Your task to perform on an android device: change your default location settings in chrome Image 0: 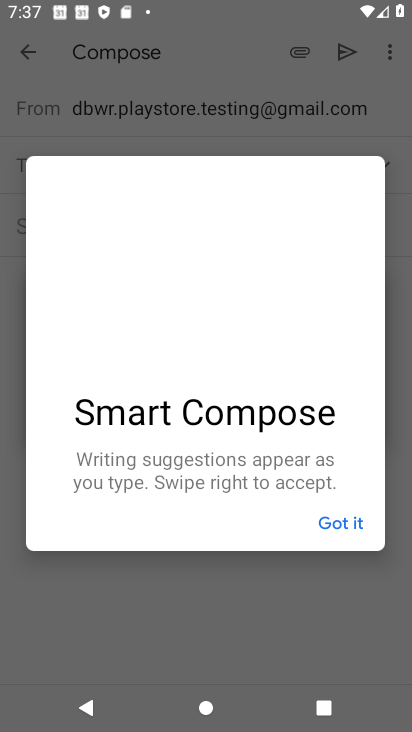
Step 0: press home button
Your task to perform on an android device: change your default location settings in chrome Image 1: 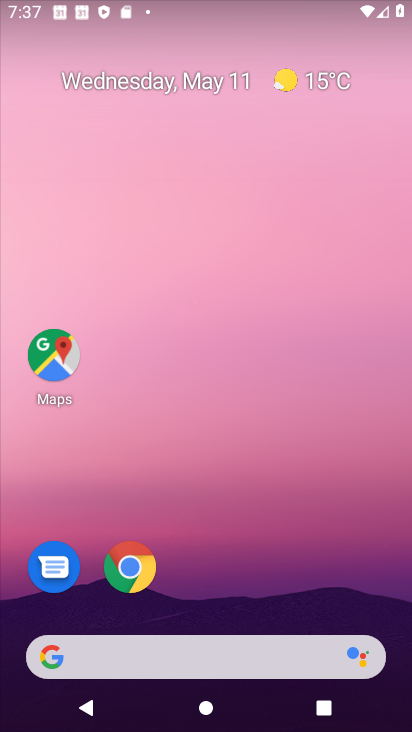
Step 1: click (122, 574)
Your task to perform on an android device: change your default location settings in chrome Image 2: 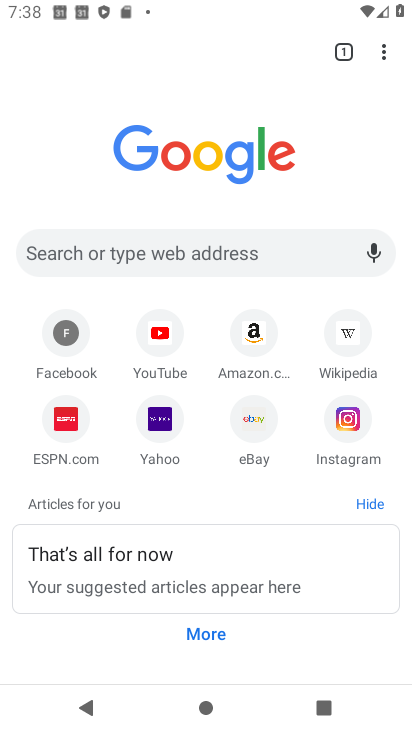
Step 2: drag from (382, 53) to (236, 445)
Your task to perform on an android device: change your default location settings in chrome Image 3: 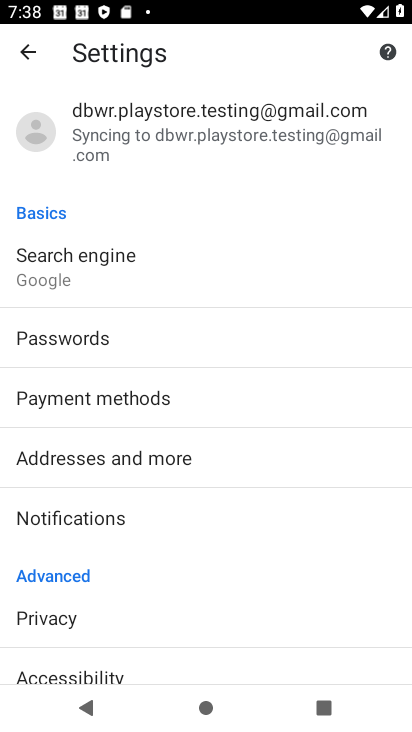
Step 3: drag from (131, 622) to (287, 268)
Your task to perform on an android device: change your default location settings in chrome Image 4: 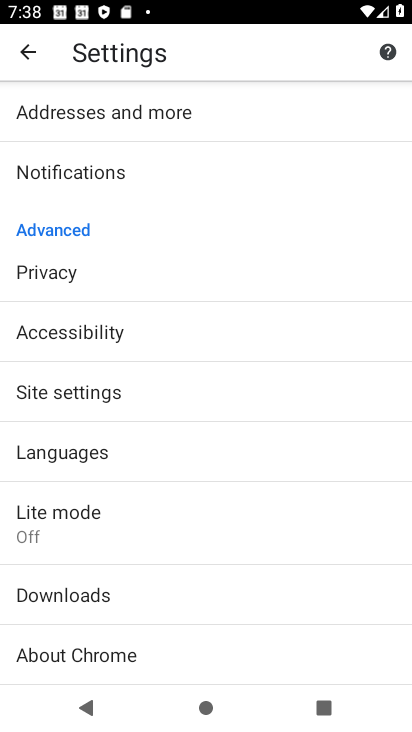
Step 4: click (112, 386)
Your task to perform on an android device: change your default location settings in chrome Image 5: 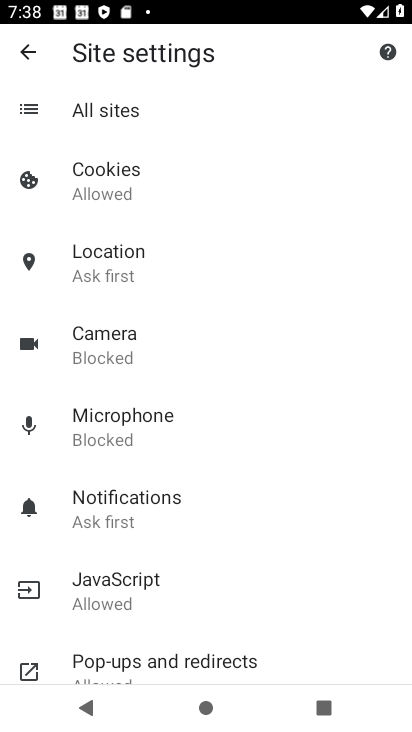
Step 5: click (200, 581)
Your task to perform on an android device: change your default location settings in chrome Image 6: 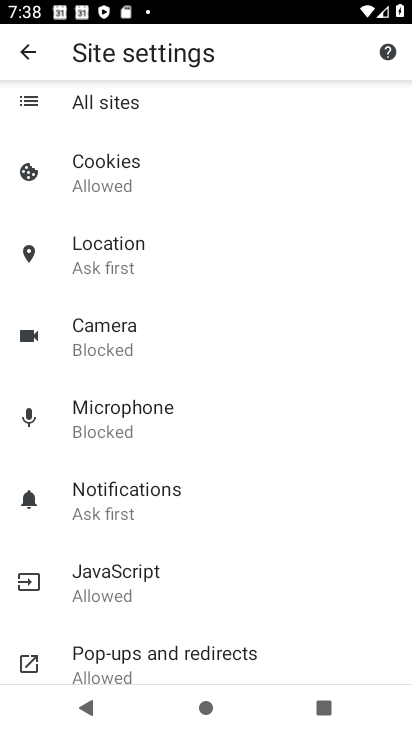
Step 6: click (103, 252)
Your task to perform on an android device: change your default location settings in chrome Image 7: 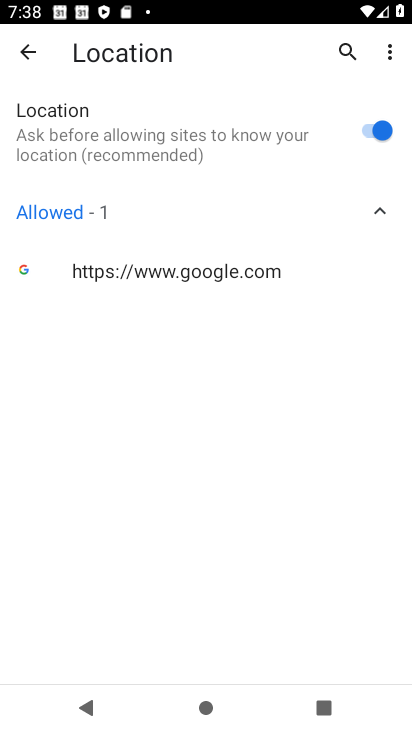
Step 7: click (371, 129)
Your task to perform on an android device: change your default location settings in chrome Image 8: 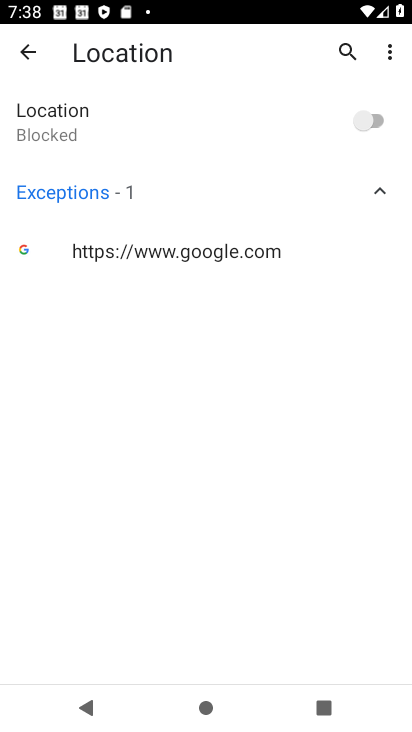
Step 8: task complete